Your task to perform on an android device: Is it going to rain tomorrow? Image 0: 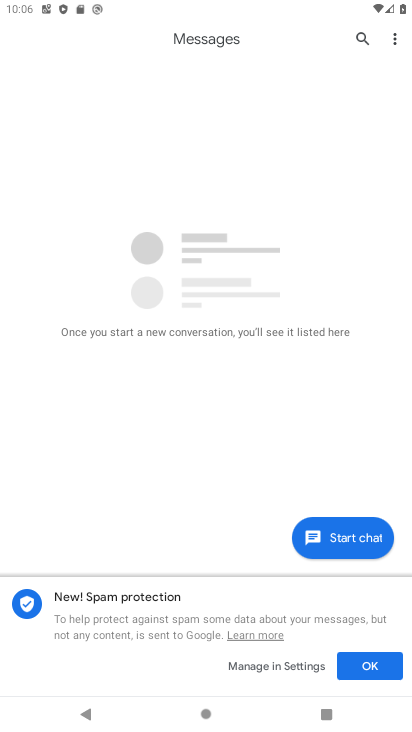
Step 0: press home button
Your task to perform on an android device: Is it going to rain tomorrow? Image 1: 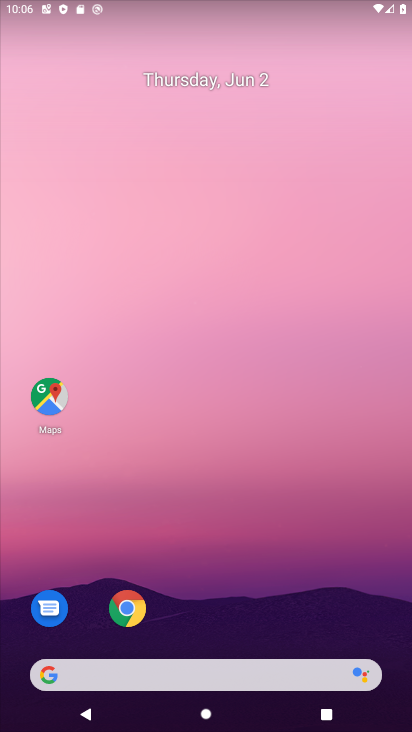
Step 1: drag from (2, 283) to (412, 284)
Your task to perform on an android device: Is it going to rain tomorrow? Image 2: 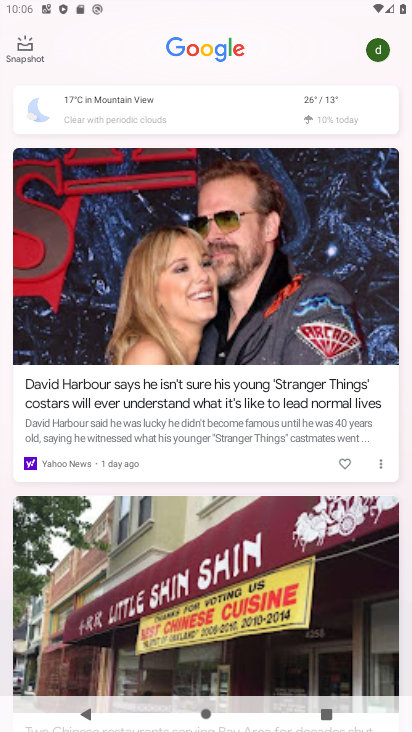
Step 2: click (288, 110)
Your task to perform on an android device: Is it going to rain tomorrow? Image 3: 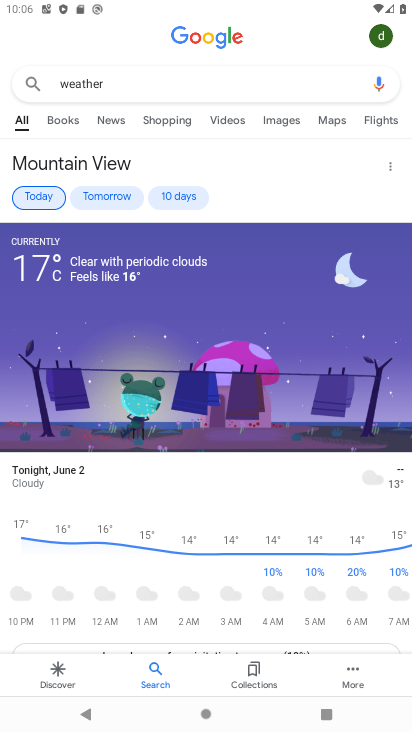
Step 3: click (105, 198)
Your task to perform on an android device: Is it going to rain tomorrow? Image 4: 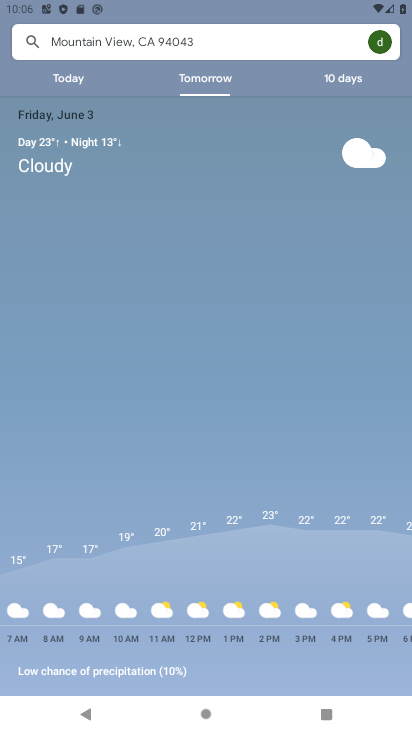
Step 4: task complete